Your task to perform on an android device: Go to settings Image 0: 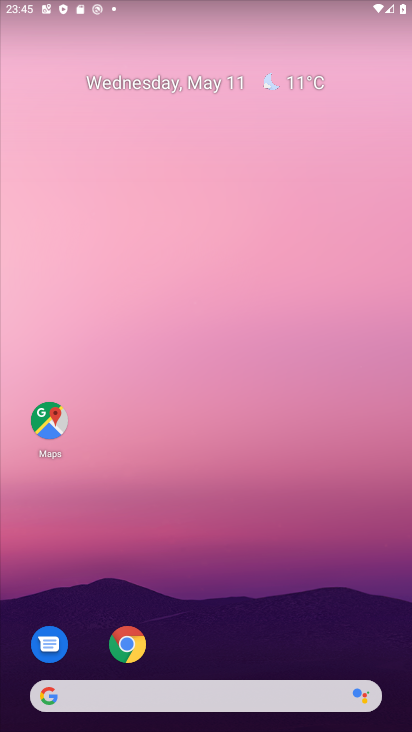
Step 0: drag from (203, 663) to (193, 138)
Your task to perform on an android device: Go to settings Image 1: 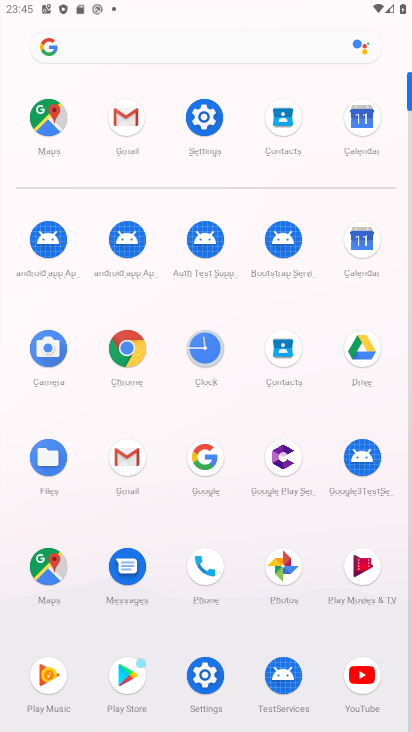
Step 1: click (211, 111)
Your task to perform on an android device: Go to settings Image 2: 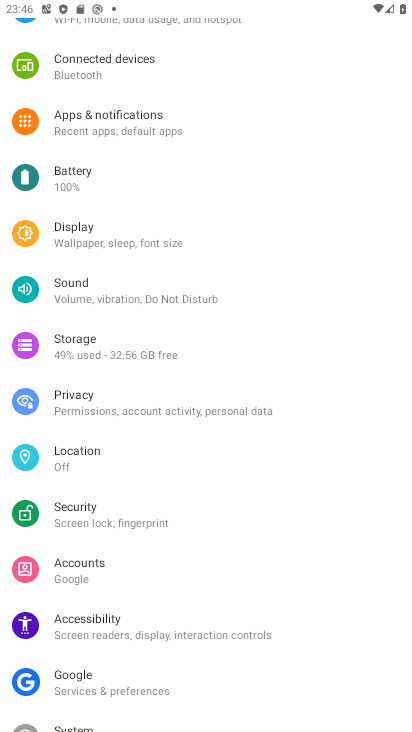
Step 2: task complete